Your task to perform on an android device: Open display settings Image 0: 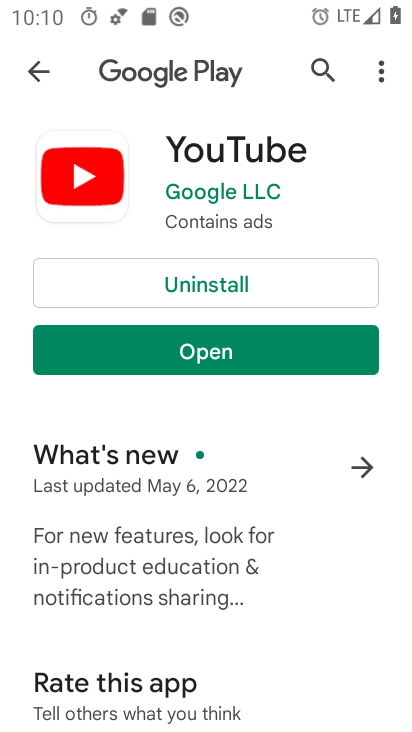
Step 0: press home button
Your task to perform on an android device: Open display settings Image 1: 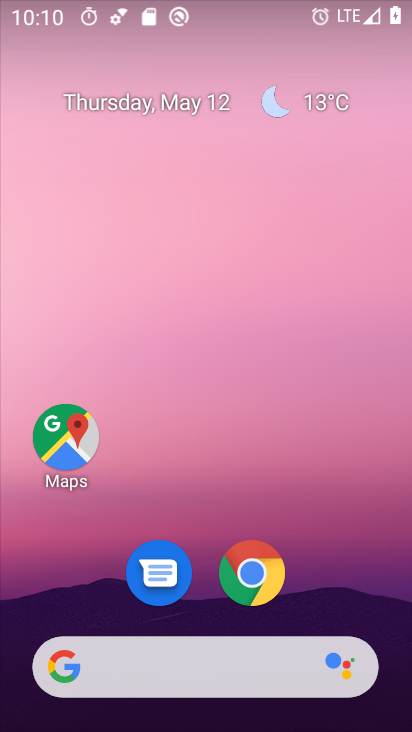
Step 1: click (318, 326)
Your task to perform on an android device: Open display settings Image 2: 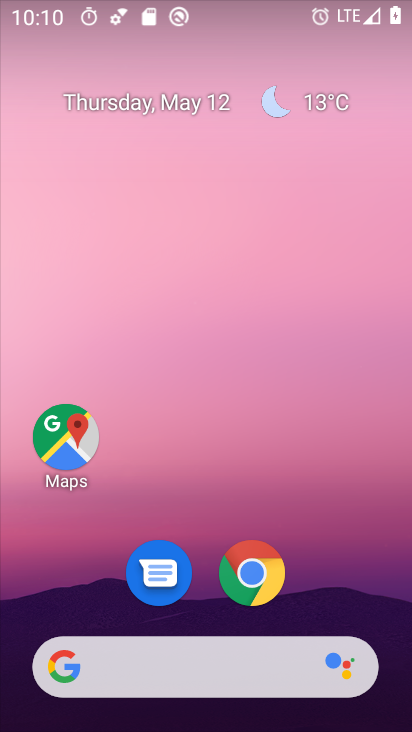
Step 2: drag from (398, 673) to (387, 412)
Your task to perform on an android device: Open display settings Image 3: 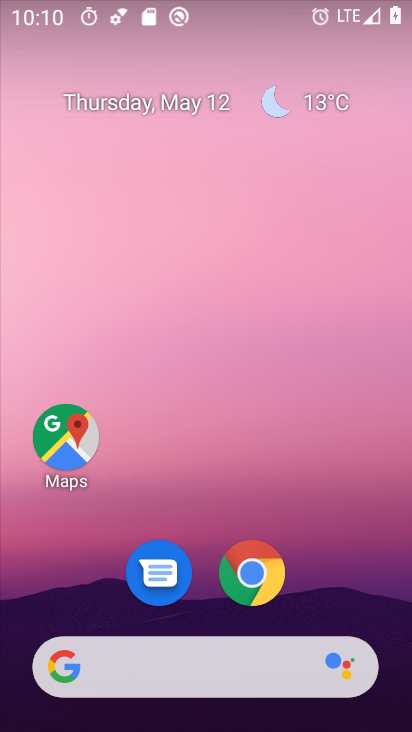
Step 3: drag from (373, 558) to (332, 349)
Your task to perform on an android device: Open display settings Image 4: 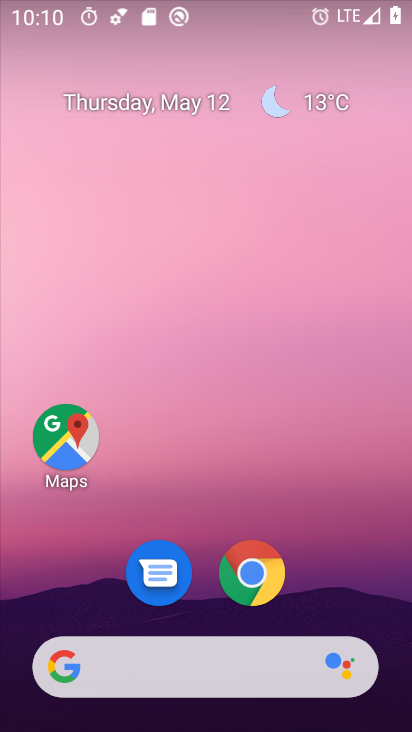
Step 4: drag from (405, 653) to (315, 247)
Your task to perform on an android device: Open display settings Image 5: 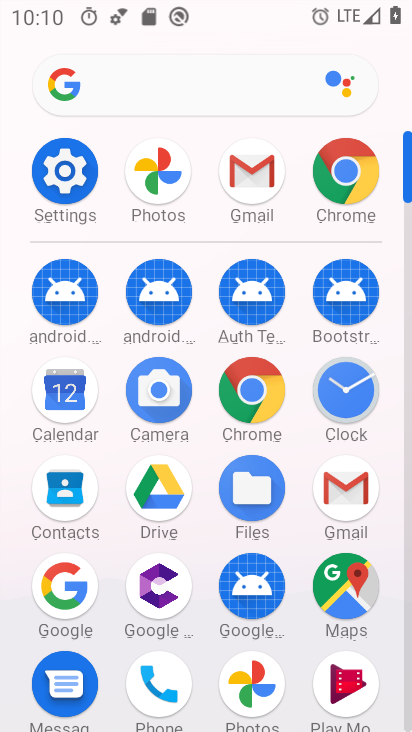
Step 5: click (72, 165)
Your task to perform on an android device: Open display settings Image 6: 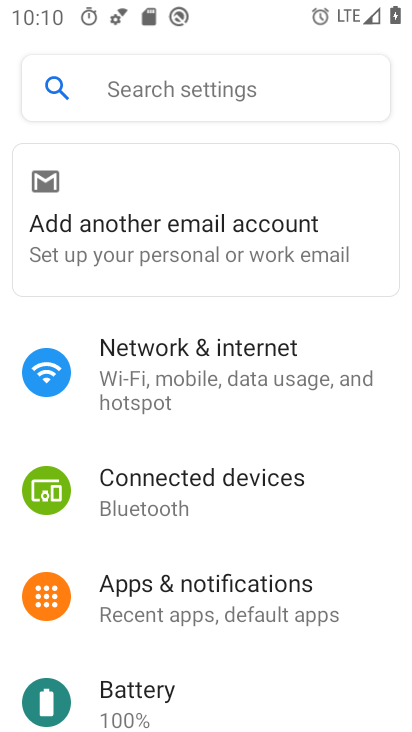
Step 6: drag from (384, 672) to (388, 330)
Your task to perform on an android device: Open display settings Image 7: 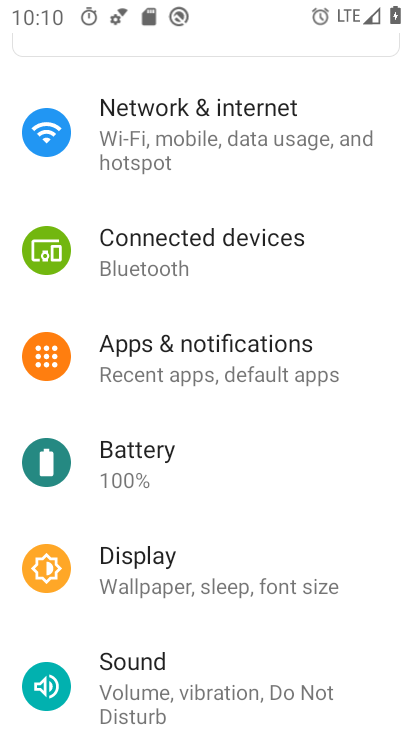
Step 7: click (148, 578)
Your task to perform on an android device: Open display settings Image 8: 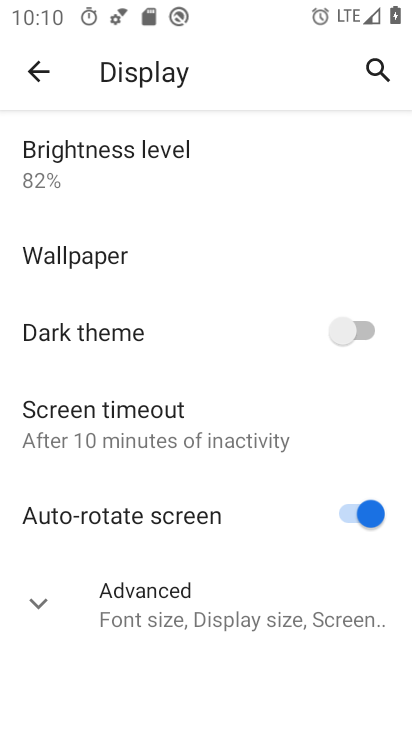
Step 8: task complete